Your task to perform on an android device: turn on wifi Image 0: 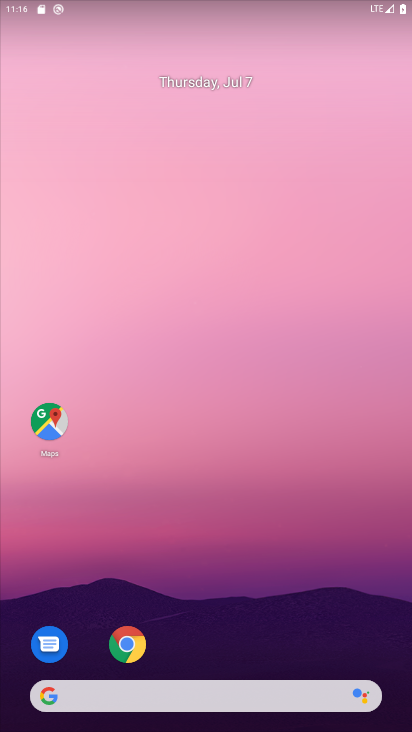
Step 0: drag from (10, 720) to (197, 138)
Your task to perform on an android device: turn on wifi Image 1: 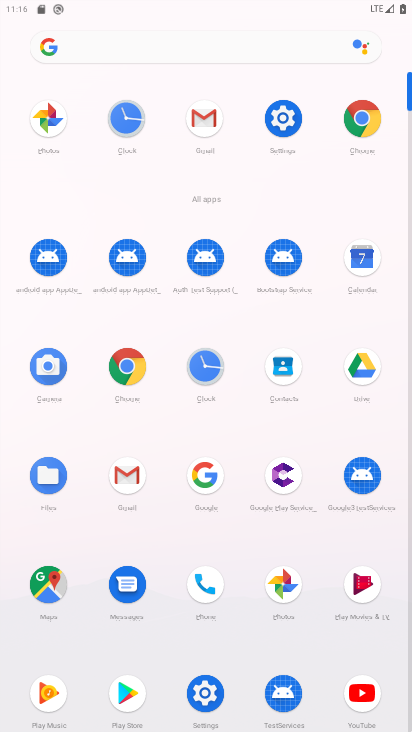
Step 1: click (200, 698)
Your task to perform on an android device: turn on wifi Image 2: 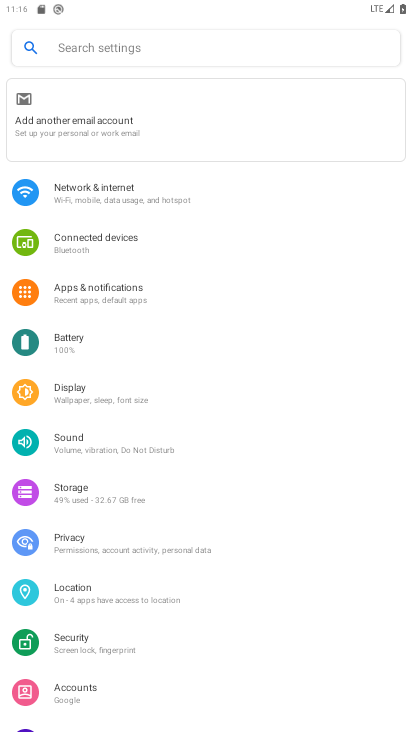
Step 2: click (68, 187)
Your task to perform on an android device: turn on wifi Image 3: 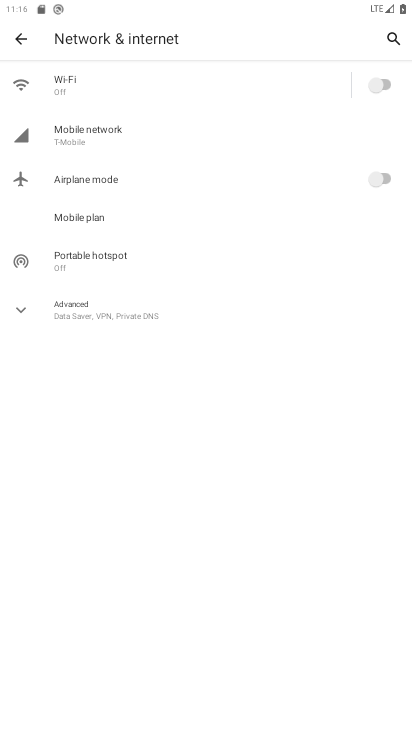
Step 3: click (384, 79)
Your task to perform on an android device: turn on wifi Image 4: 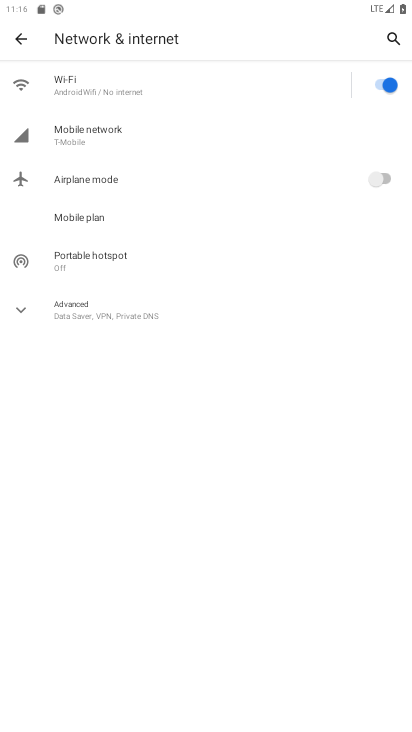
Step 4: task complete